Your task to perform on an android device: Open internet settings Image 0: 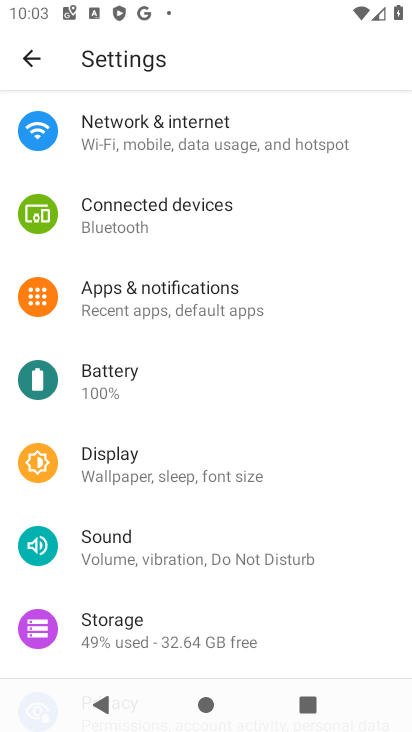
Step 0: click (201, 137)
Your task to perform on an android device: Open internet settings Image 1: 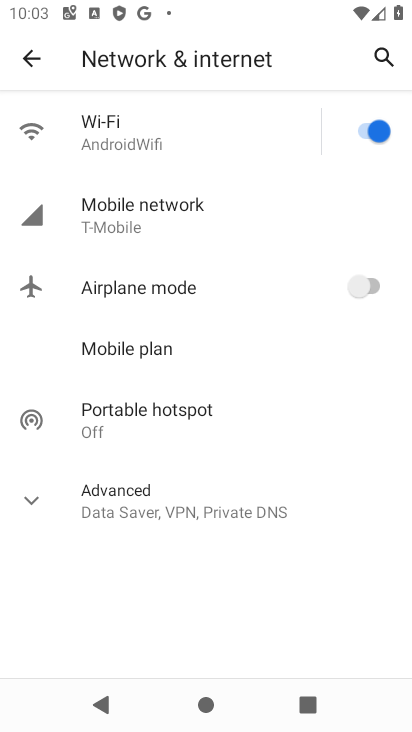
Step 1: task complete